Your task to perform on an android device: turn off smart reply in the gmail app Image 0: 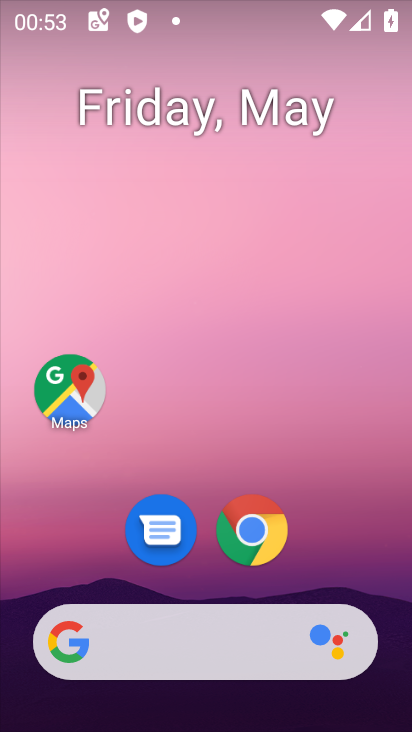
Step 0: drag from (333, 552) to (251, 4)
Your task to perform on an android device: turn off smart reply in the gmail app Image 1: 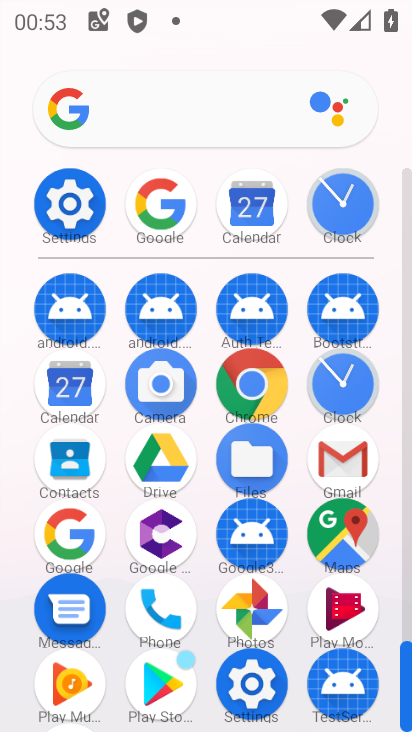
Step 1: click (343, 456)
Your task to perform on an android device: turn off smart reply in the gmail app Image 2: 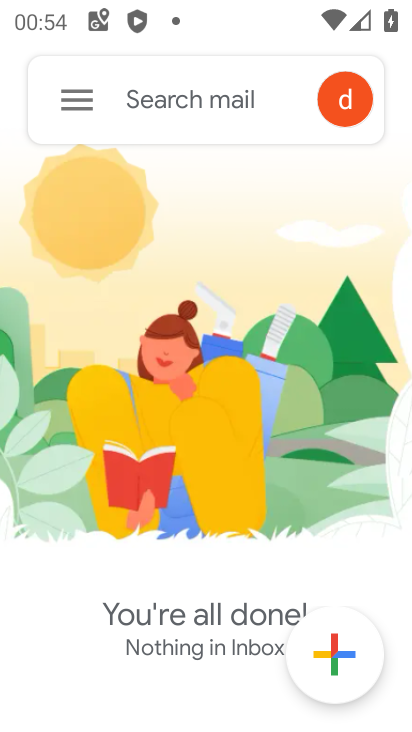
Step 2: click (72, 101)
Your task to perform on an android device: turn off smart reply in the gmail app Image 3: 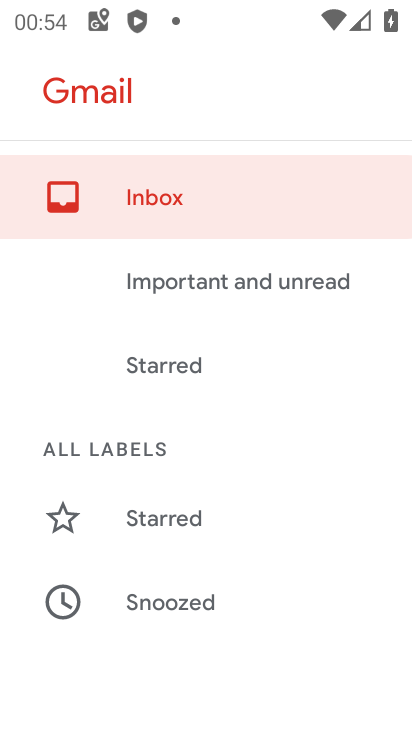
Step 3: drag from (145, 399) to (244, 285)
Your task to perform on an android device: turn off smart reply in the gmail app Image 4: 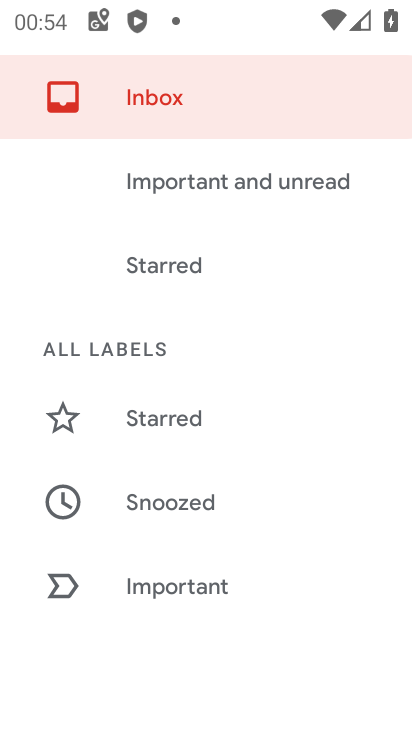
Step 4: drag from (167, 452) to (233, 358)
Your task to perform on an android device: turn off smart reply in the gmail app Image 5: 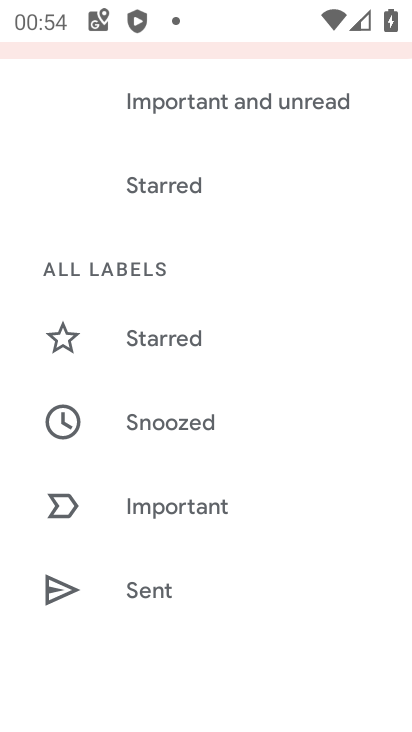
Step 5: drag from (167, 448) to (243, 339)
Your task to perform on an android device: turn off smart reply in the gmail app Image 6: 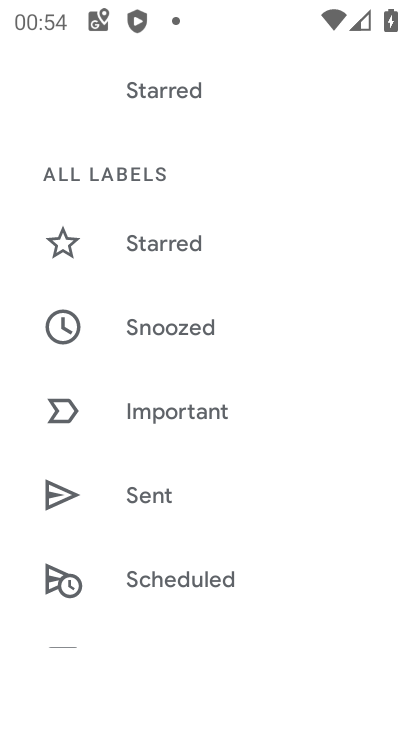
Step 6: drag from (171, 447) to (263, 343)
Your task to perform on an android device: turn off smart reply in the gmail app Image 7: 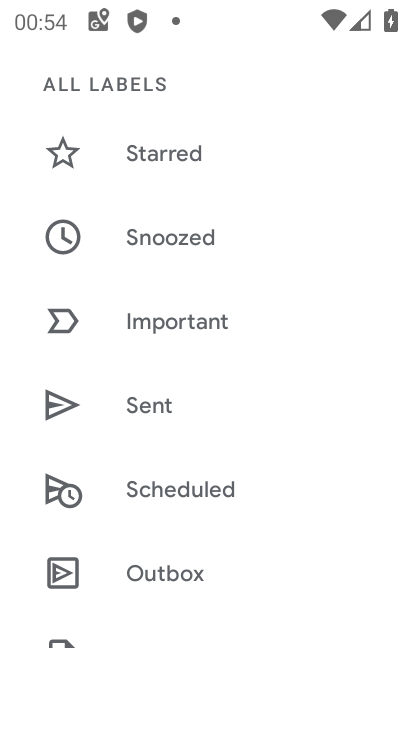
Step 7: drag from (151, 443) to (244, 340)
Your task to perform on an android device: turn off smart reply in the gmail app Image 8: 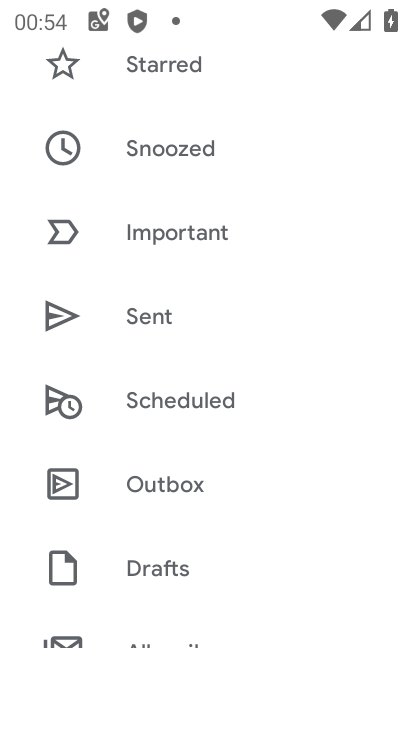
Step 8: drag from (159, 442) to (252, 330)
Your task to perform on an android device: turn off smart reply in the gmail app Image 9: 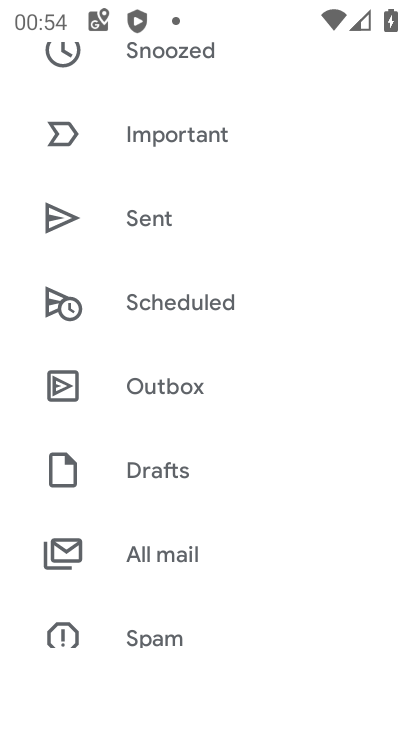
Step 9: drag from (157, 433) to (244, 331)
Your task to perform on an android device: turn off smart reply in the gmail app Image 10: 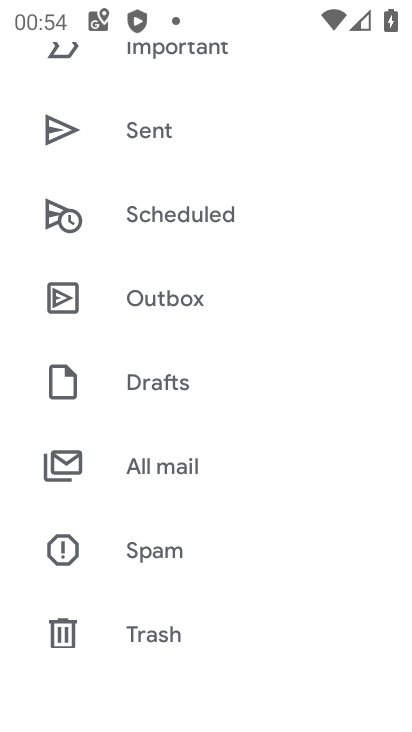
Step 10: drag from (153, 432) to (224, 344)
Your task to perform on an android device: turn off smart reply in the gmail app Image 11: 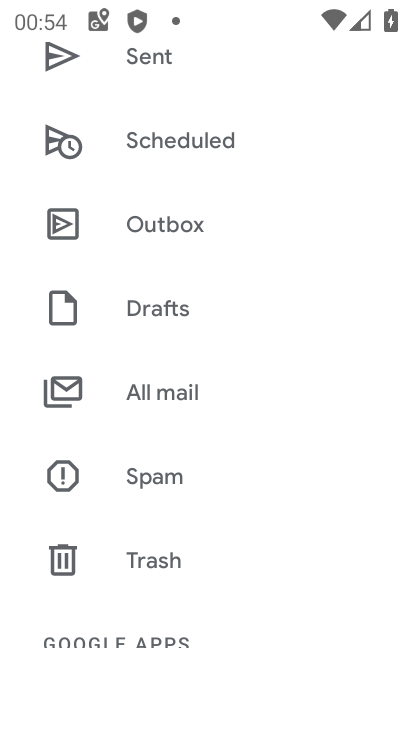
Step 11: drag from (141, 447) to (197, 350)
Your task to perform on an android device: turn off smart reply in the gmail app Image 12: 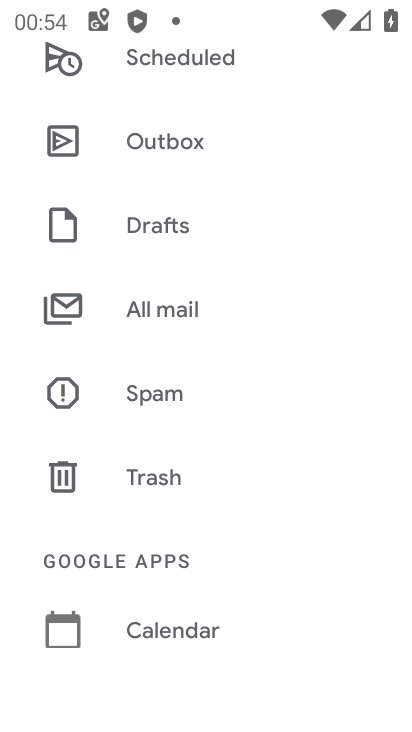
Step 12: drag from (148, 451) to (233, 303)
Your task to perform on an android device: turn off smart reply in the gmail app Image 13: 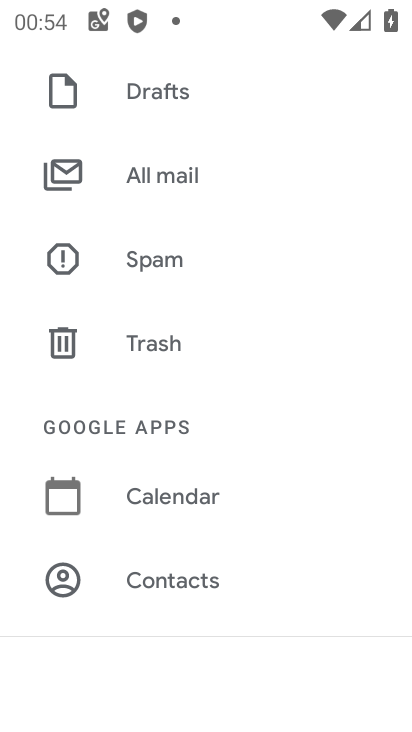
Step 13: drag from (163, 464) to (255, 342)
Your task to perform on an android device: turn off smart reply in the gmail app Image 14: 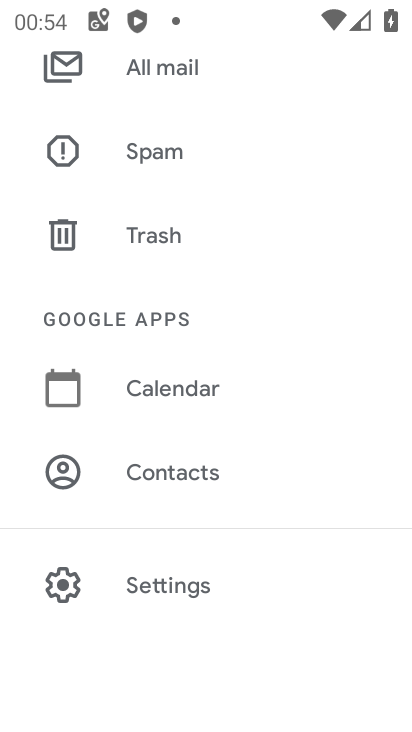
Step 14: drag from (153, 531) to (253, 420)
Your task to perform on an android device: turn off smart reply in the gmail app Image 15: 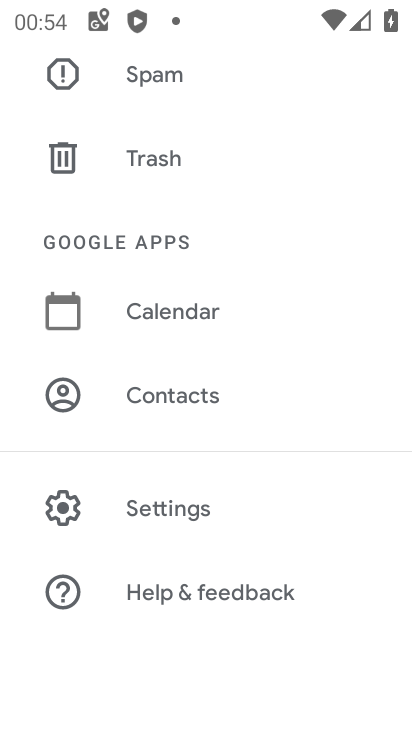
Step 15: click (202, 502)
Your task to perform on an android device: turn off smart reply in the gmail app Image 16: 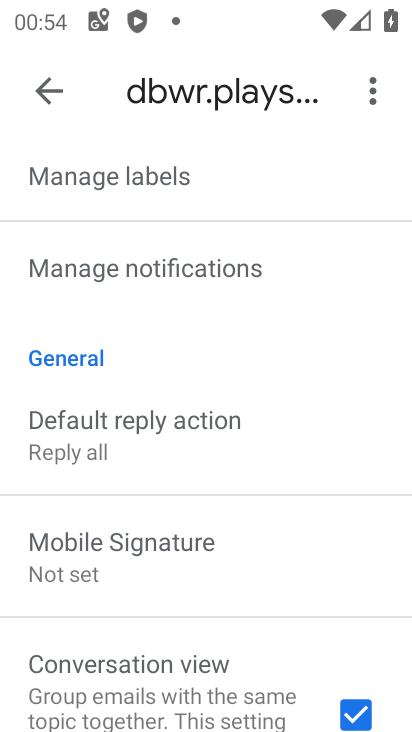
Step 16: drag from (159, 590) to (239, 485)
Your task to perform on an android device: turn off smart reply in the gmail app Image 17: 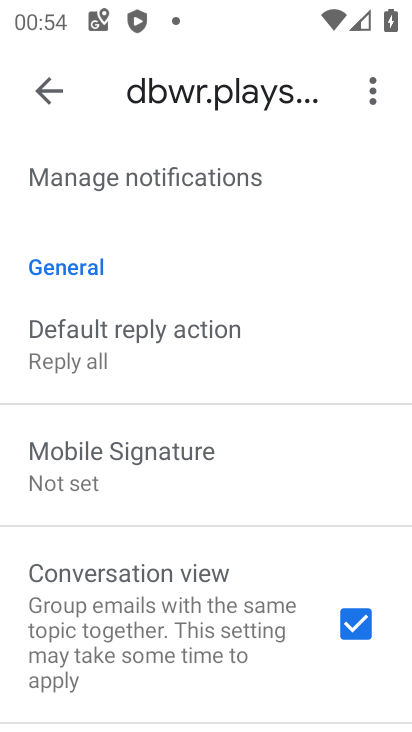
Step 17: drag from (150, 624) to (272, 485)
Your task to perform on an android device: turn off smart reply in the gmail app Image 18: 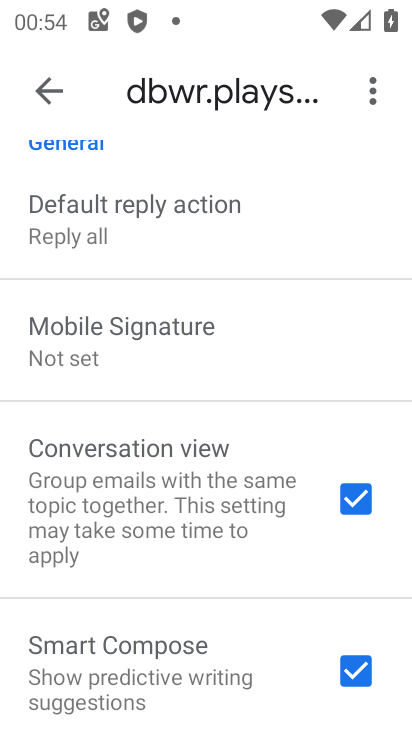
Step 18: drag from (148, 657) to (252, 541)
Your task to perform on an android device: turn off smart reply in the gmail app Image 19: 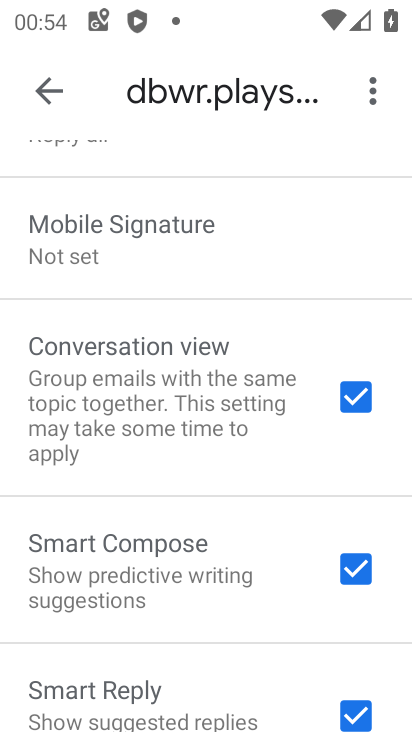
Step 19: drag from (147, 695) to (271, 513)
Your task to perform on an android device: turn off smart reply in the gmail app Image 20: 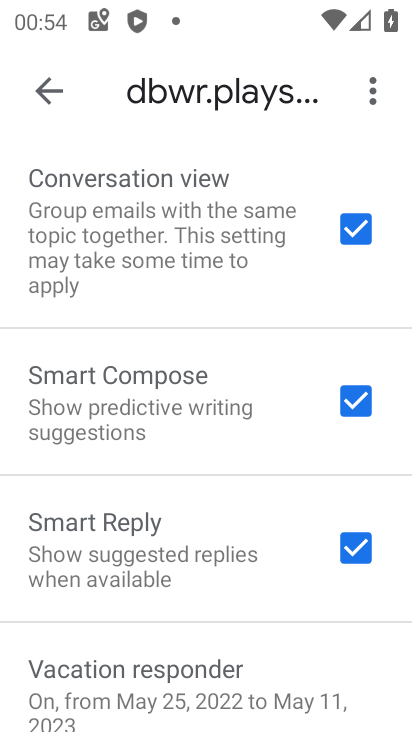
Step 20: click (358, 556)
Your task to perform on an android device: turn off smart reply in the gmail app Image 21: 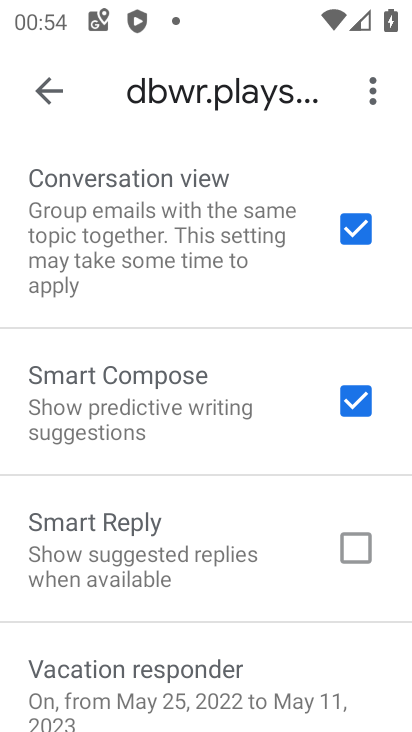
Step 21: task complete